Your task to perform on an android device: turn off notifications settings in the gmail app Image 0: 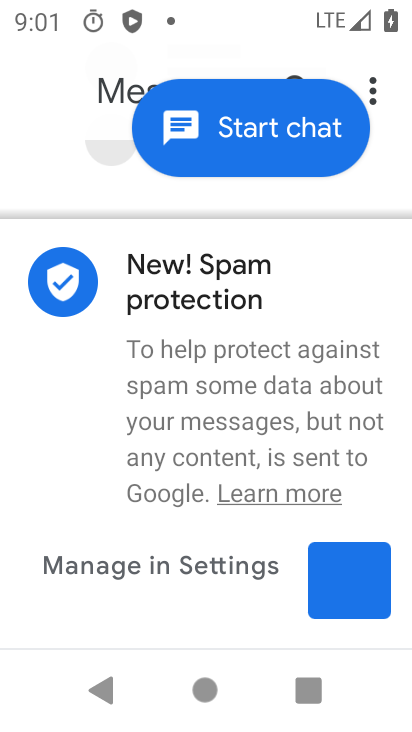
Step 0: drag from (189, 543) to (207, 161)
Your task to perform on an android device: turn off notifications settings in the gmail app Image 1: 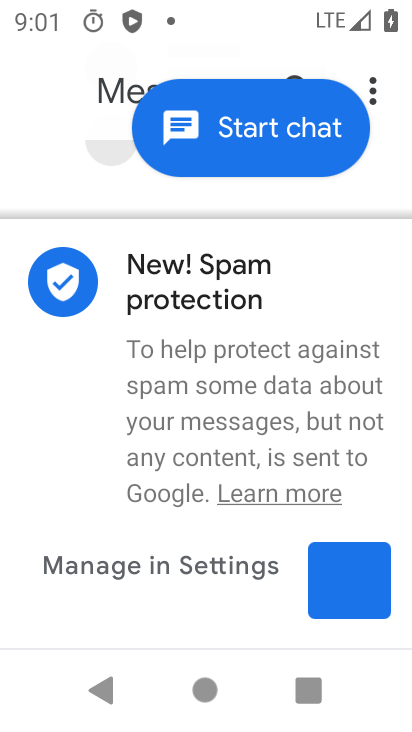
Step 1: press home button
Your task to perform on an android device: turn off notifications settings in the gmail app Image 2: 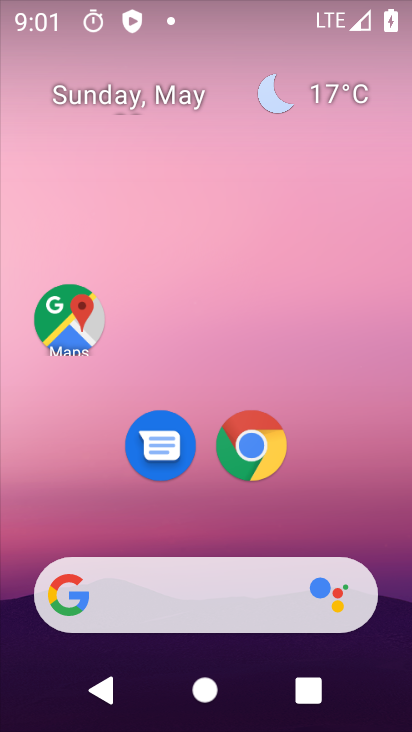
Step 2: drag from (200, 528) to (186, 12)
Your task to perform on an android device: turn off notifications settings in the gmail app Image 3: 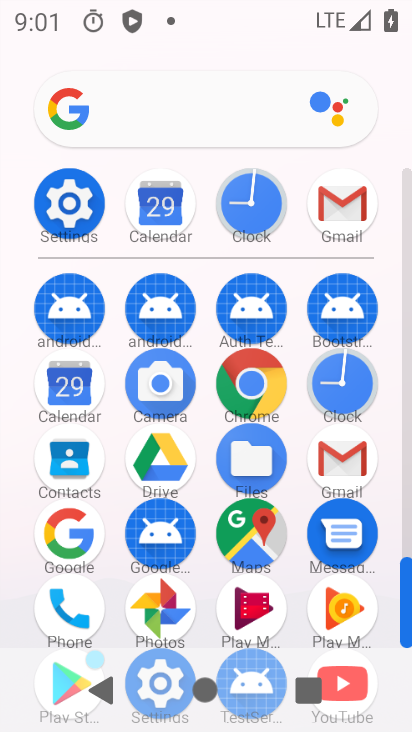
Step 3: click (343, 454)
Your task to perform on an android device: turn off notifications settings in the gmail app Image 4: 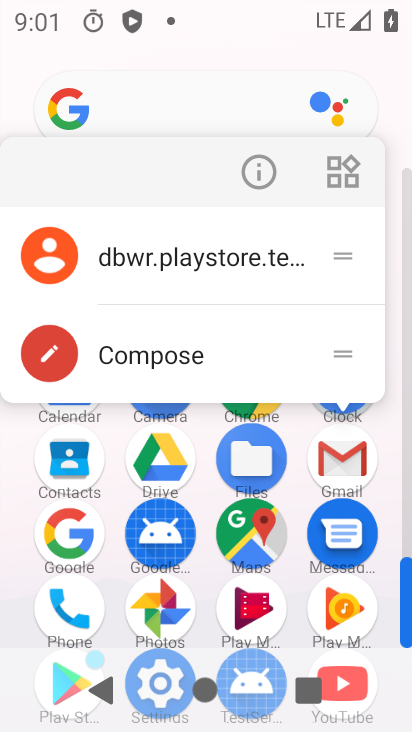
Step 4: click (272, 152)
Your task to perform on an android device: turn off notifications settings in the gmail app Image 5: 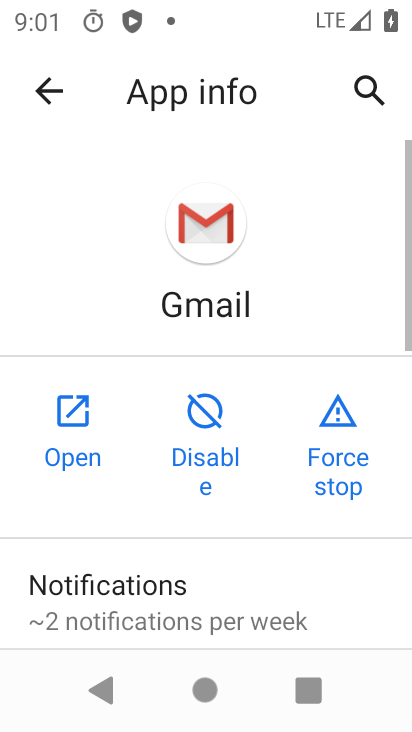
Step 5: click (72, 436)
Your task to perform on an android device: turn off notifications settings in the gmail app Image 6: 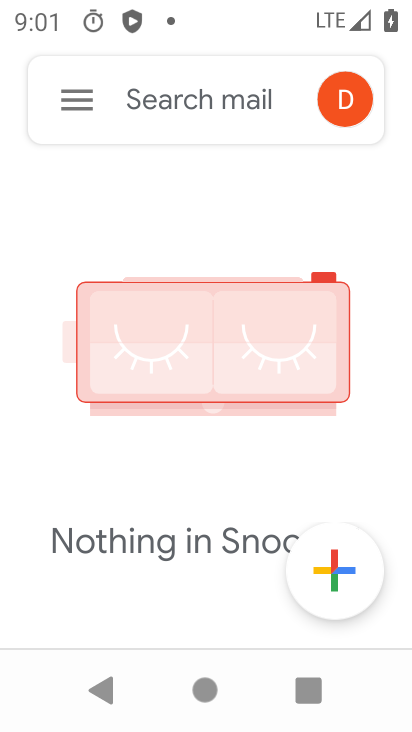
Step 6: drag from (151, 479) to (221, 26)
Your task to perform on an android device: turn off notifications settings in the gmail app Image 7: 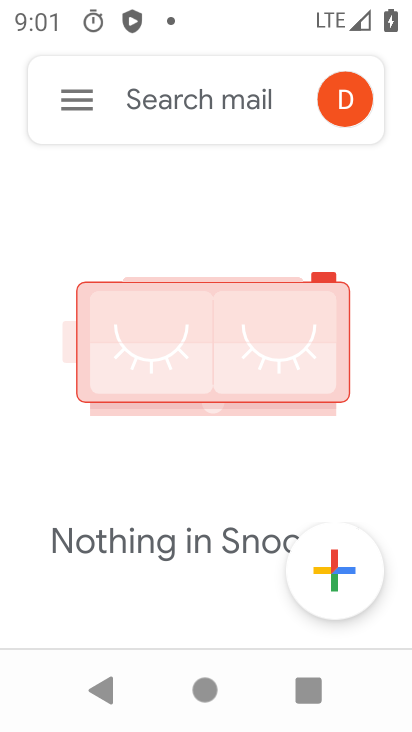
Step 7: click (68, 106)
Your task to perform on an android device: turn off notifications settings in the gmail app Image 8: 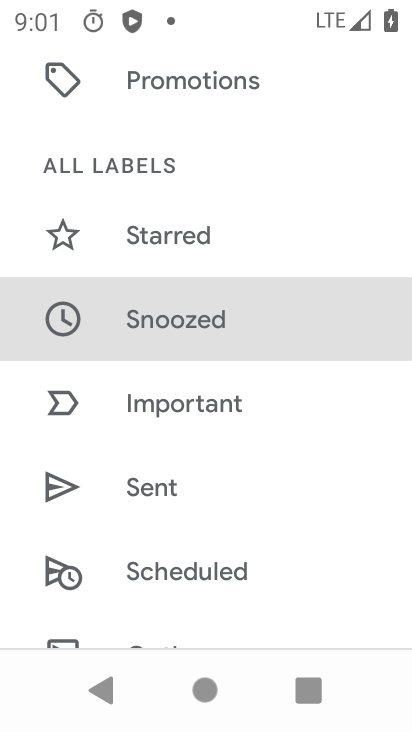
Step 8: drag from (186, 475) to (252, 71)
Your task to perform on an android device: turn off notifications settings in the gmail app Image 9: 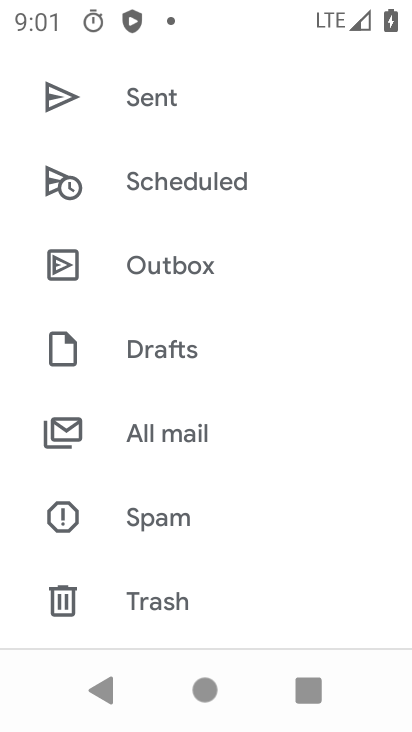
Step 9: drag from (81, 554) to (166, 168)
Your task to perform on an android device: turn off notifications settings in the gmail app Image 10: 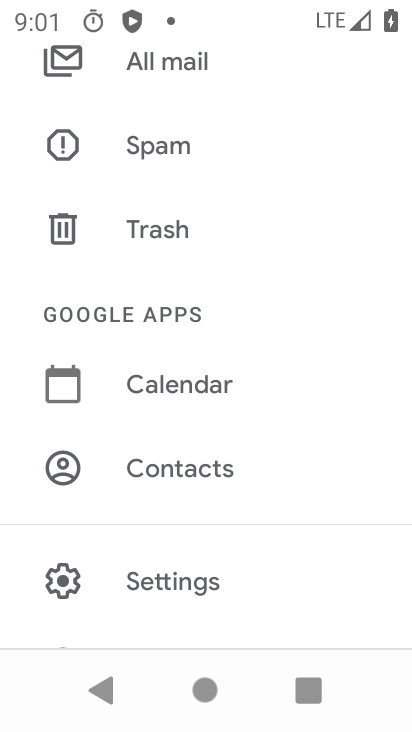
Step 10: drag from (224, 534) to (267, 305)
Your task to perform on an android device: turn off notifications settings in the gmail app Image 11: 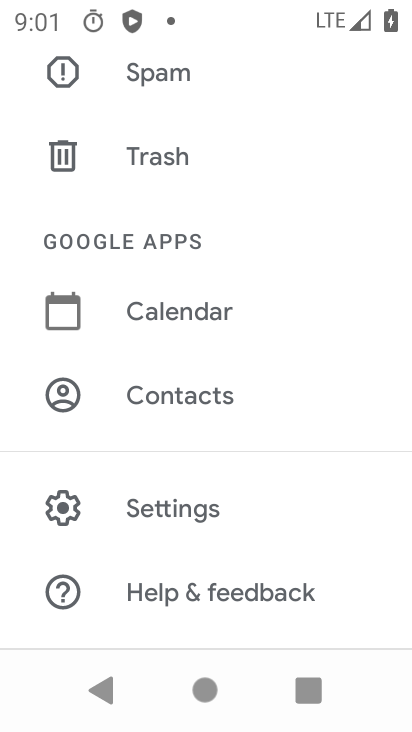
Step 11: click (174, 509)
Your task to perform on an android device: turn off notifications settings in the gmail app Image 12: 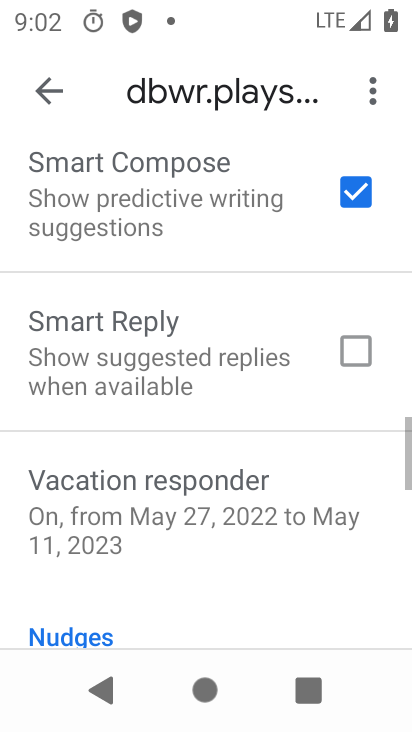
Step 12: drag from (203, 624) to (281, 87)
Your task to perform on an android device: turn off notifications settings in the gmail app Image 13: 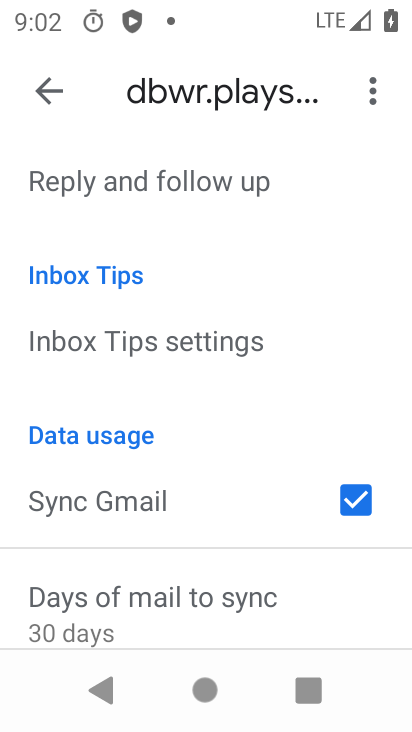
Step 13: drag from (206, 231) to (406, 685)
Your task to perform on an android device: turn off notifications settings in the gmail app Image 14: 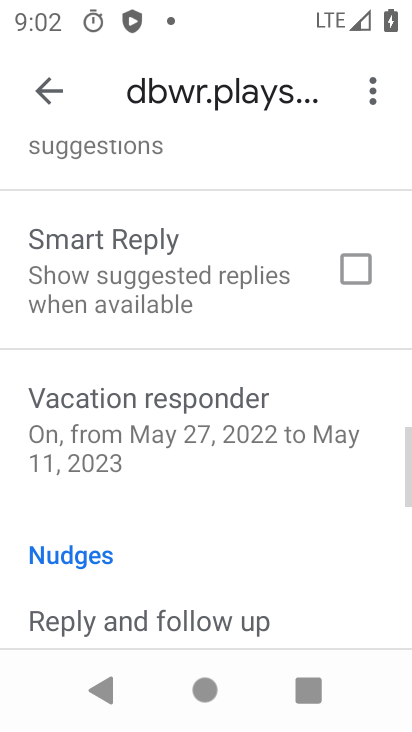
Step 14: drag from (191, 279) to (392, 721)
Your task to perform on an android device: turn off notifications settings in the gmail app Image 15: 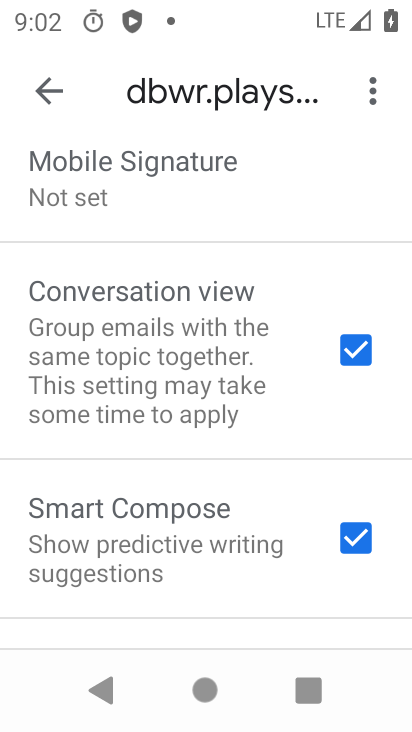
Step 15: drag from (165, 261) to (411, 730)
Your task to perform on an android device: turn off notifications settings in the gmail app Image 16: 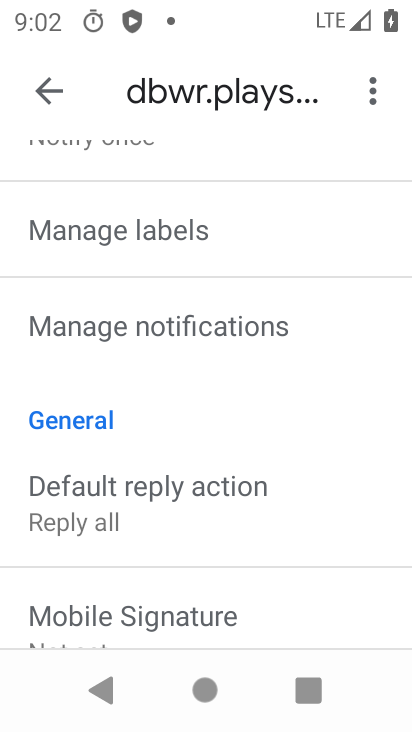
Step 16: click (119, 293)
Your task to perform on an android device: turn off notifications settings in the gmail app Image 17: 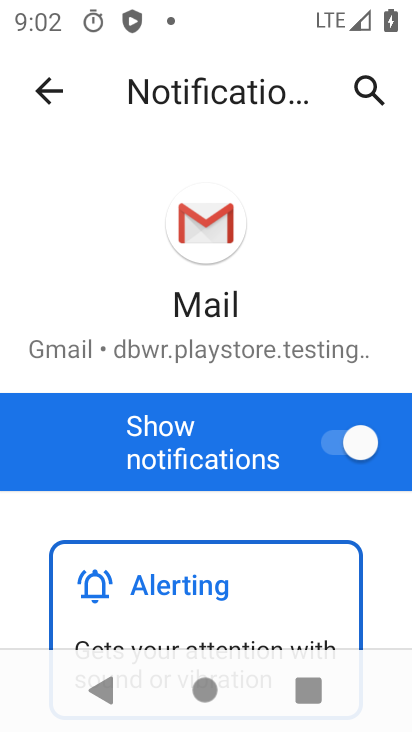
Step 17: drag from (292, 296) to (179, 31)
Your task to perform on an android device: turn off notifications settings in the gmail app Image 18: 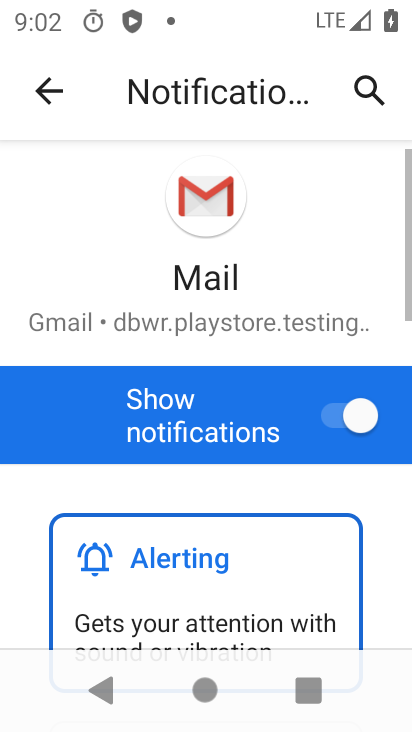
Step 18: drag from (302, 593) to (333, 149)
Your task to perform on an android device: turn off notifications settings in the gmail app Image 19: 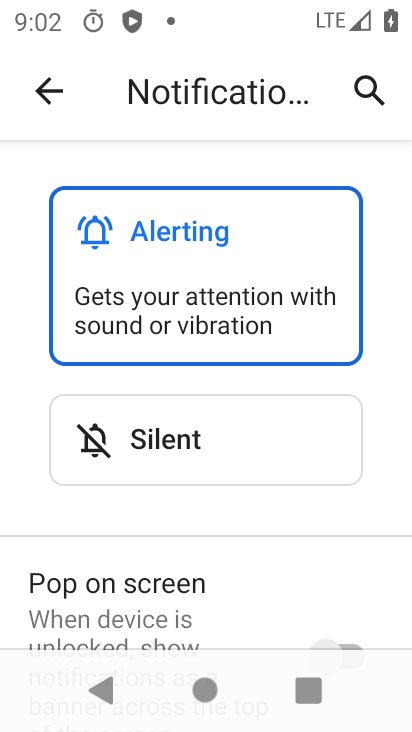
Step 19: drag from (284, 612) to (321, 301)
Your task to perform on an android device: turn off notifications settings in the gmail app Image 20: 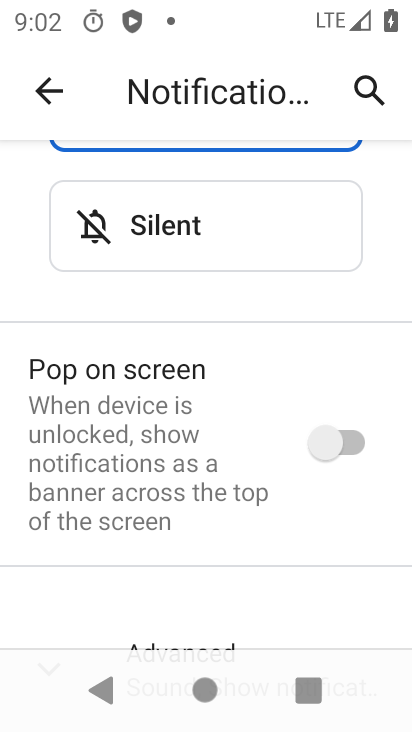
Step 20: drag from (247, 512) to (330, 180)
Your task to perform on an android device: turn off notifications settings in the gmail app Image 21: 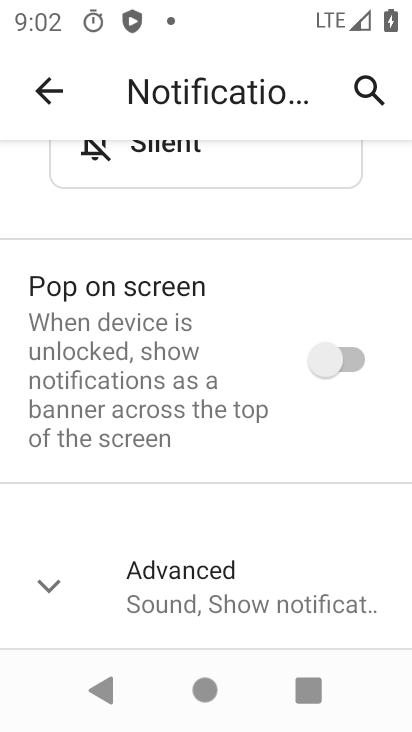
Step 21: drag from (259, 525) to (308, 327)
Your task to perform on an android device: turn off notifications settings in the gmail app Image 22: 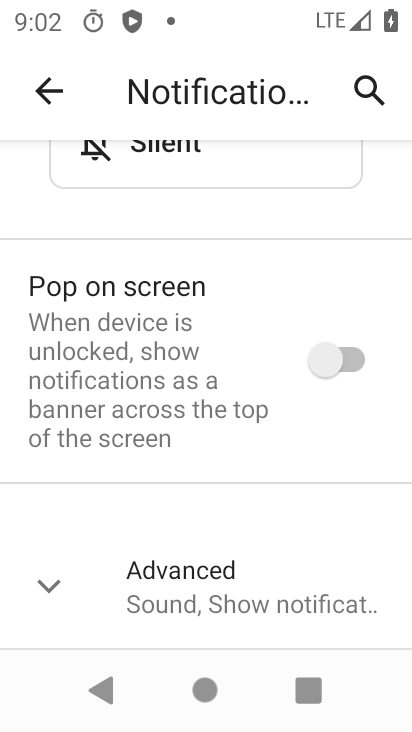
Step 22: drag from (161, 566) to (287, 254)
Your task to perform on an android device: turn off notifications settings in the gmail app Image 23: 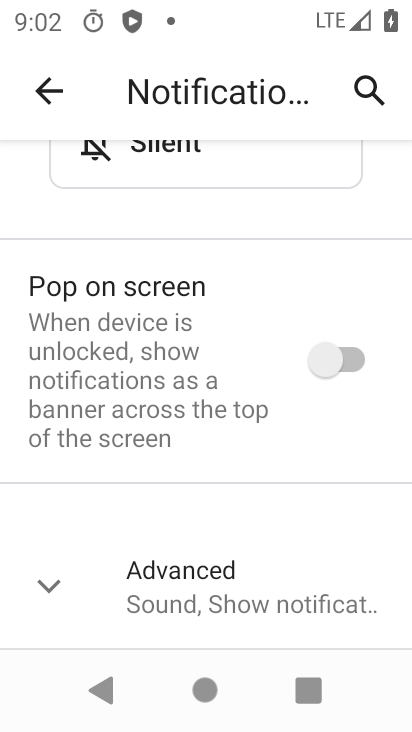
Step 23: click (164, 567)
Your task to perform on an android device: turn off notifications settings in the gmail app Image 24: 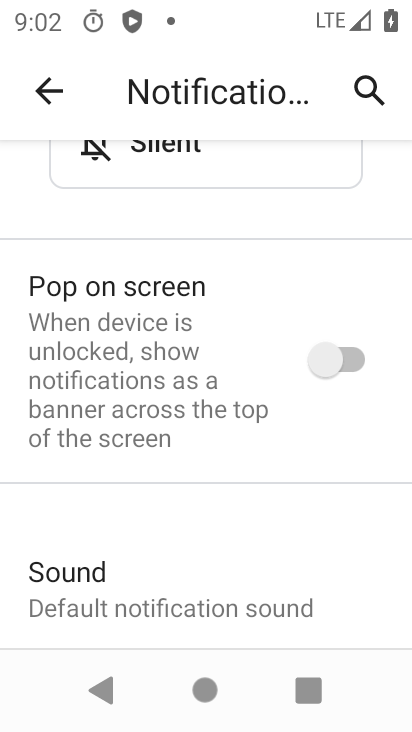
Step 24: drag from (167, 607) to (270, 291)
Your task to perform on an android device: turn off notifications settings in the gmail app Image 25: 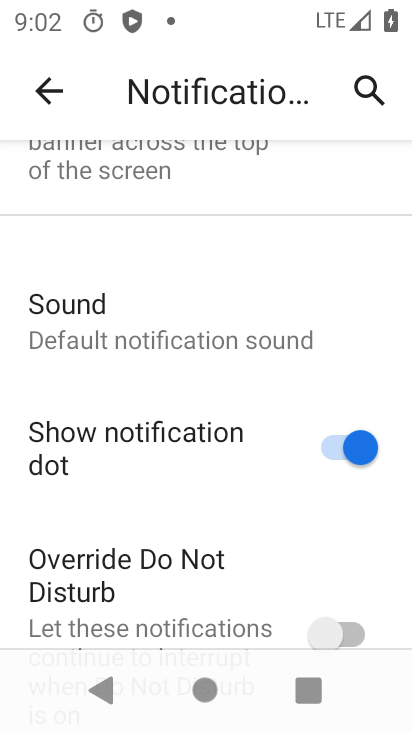
Step 25: drag from (238, 616) to (298, 314)
Your task to perform on an android device: turn off notifications settings in the gmail app Image 26: 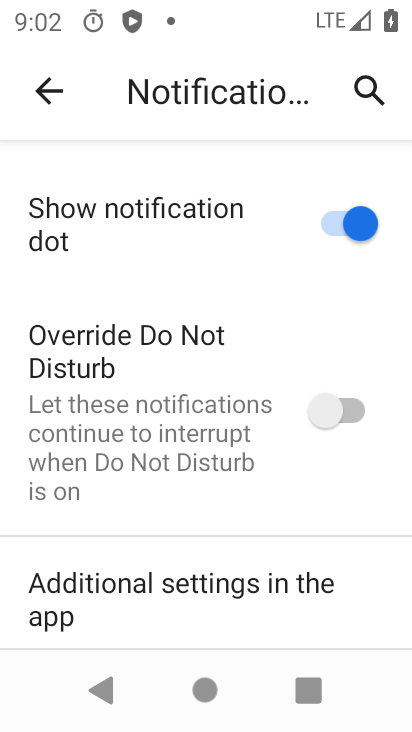
Step 26: drag from (216, 572) to (285, 319)
Your task to perform on an android device: turn off notifications settings in the gmail app Image 27: 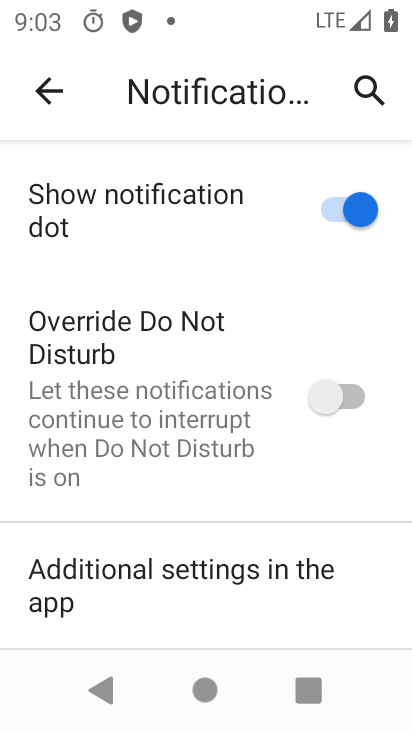
Step 27: drag from (228, 600) to (326, 67)
Your task to perform on an android device: turn off notifications settings in the gmail app Image 28: 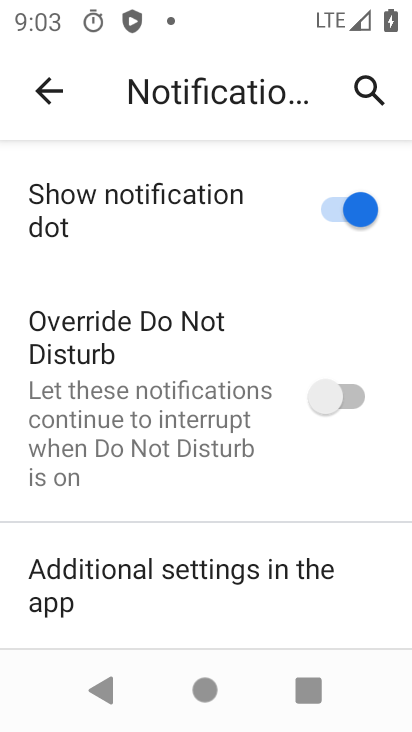
Step 28: drag from (151, 585) to (250, 250)
Your task to perform on an android device: turn off notifications settings in the gmail app Image 29: 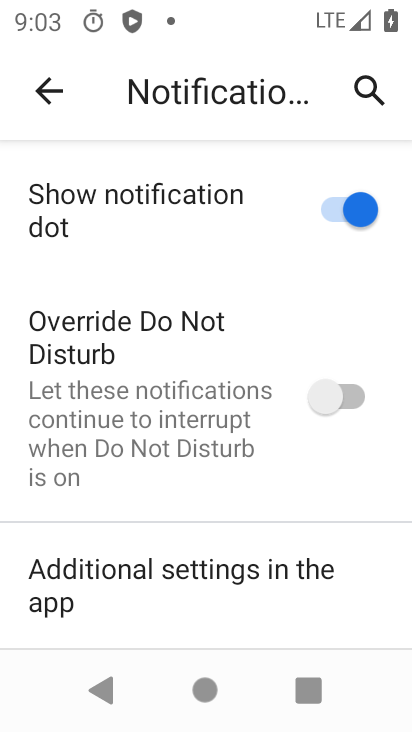
Step 29: drag from (228, 261) to (249, 494)
Your task to perform on an android device: turn off notifications settings in the gmail app Image 30: 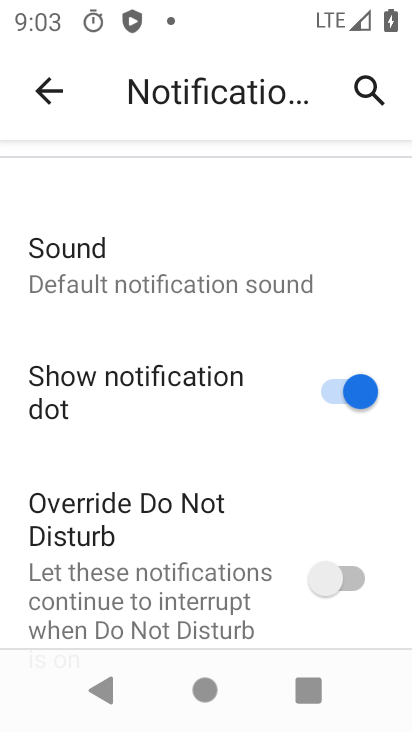
Step 30: drag from (198, 294) to (261, 648)
Your task to perform on an android device: turn off notifications settings in the gmail app Image 31: 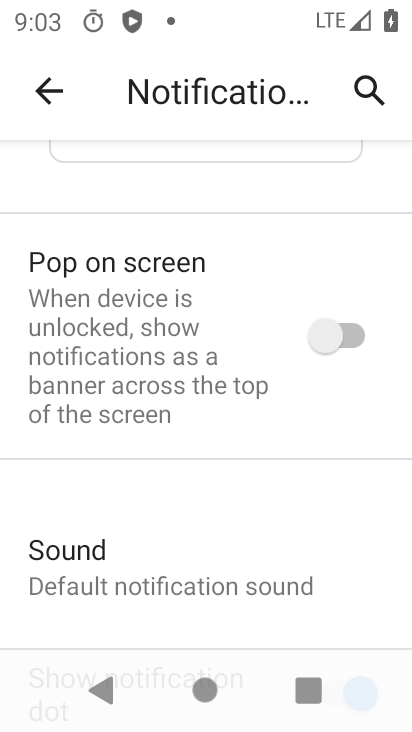
Step 31: drag from (241, 273) to (326, 714)
Your task to perform on an android device: turn off notifications settings in the gmail app Image 32: 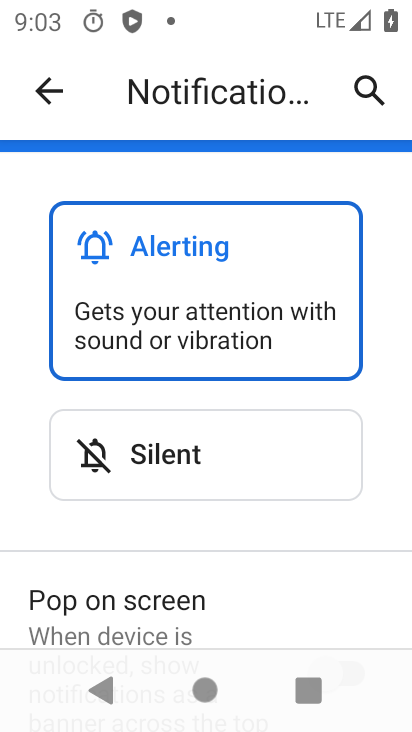
Step 32: drag from (214, 171) to (353, 714)
Your task to perform on an android device: turn off notifications settings in the gmail app Image 33: 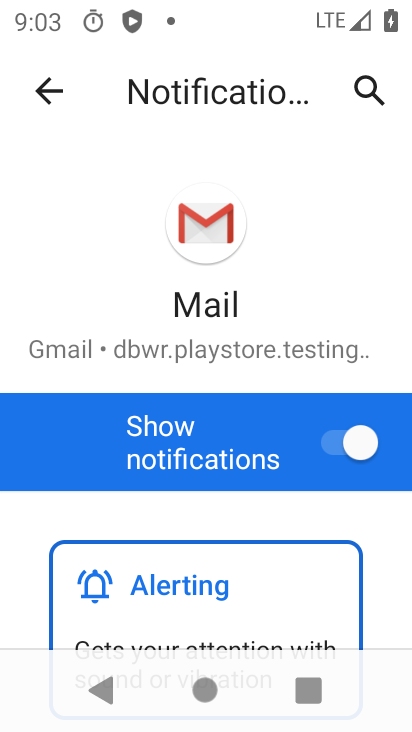
Step 33: click (324, 440)
Your task to perform on an android device: turn off notifications settings in the gmail app Image 34: 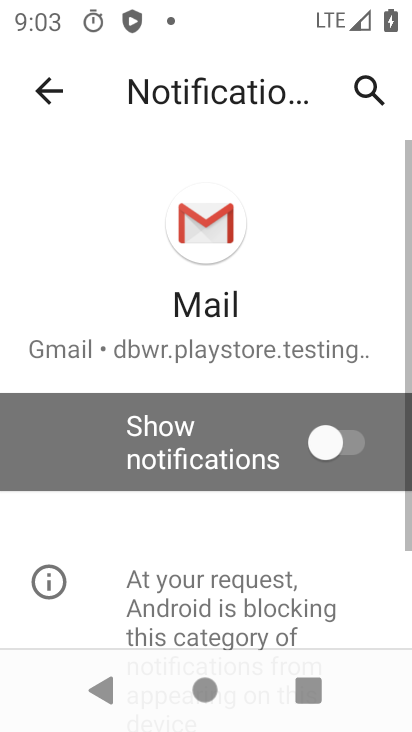
Step 34: task complete